Your task to perform on an android device: turn smart compose on in the gmail app Image 0: 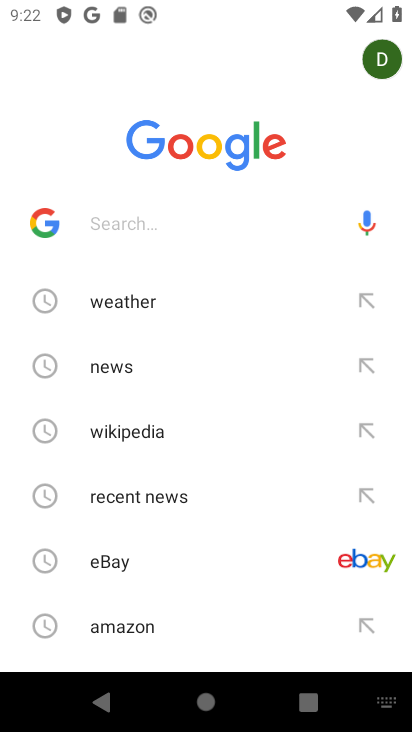
Step 0: press home button
Your task to perform on an android device: turn smart compose on in the gmail app Image 1: 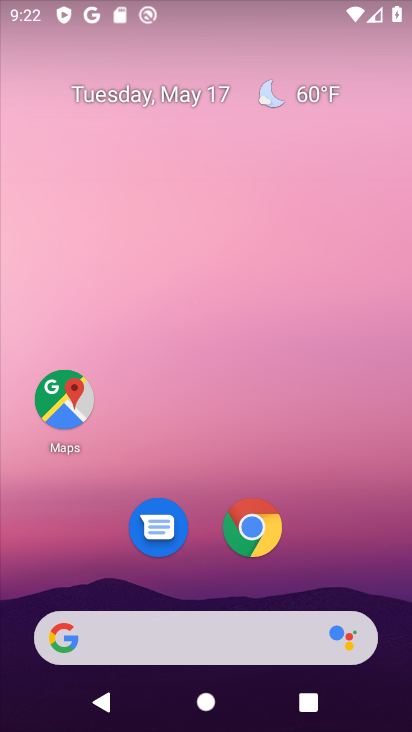
Step 1: drag from (204, 588) to (244, 33)
Your task to perform on an android device: turn smart compose on in the gmail app Image 2: 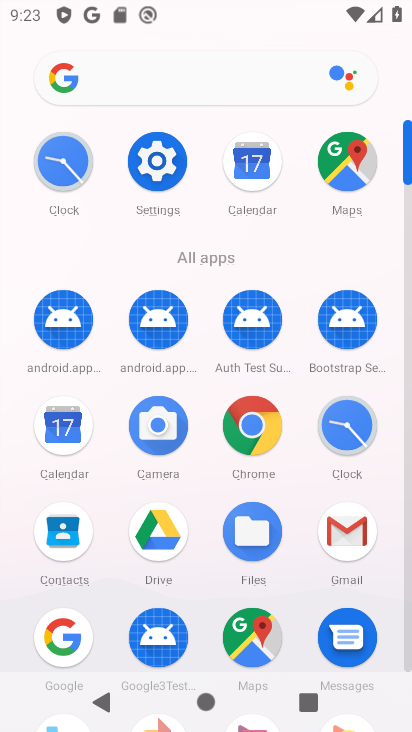
Step 2: click (331, 540)
Your task to perform on an android device: turn smart compose on in the gmail app Image 3: 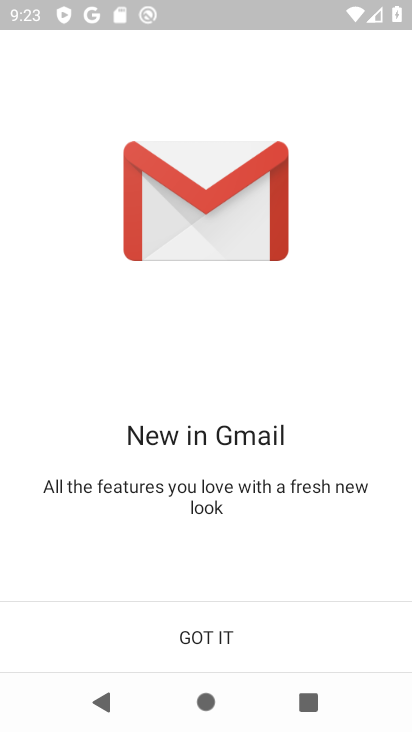
Step 3: click (220, 637)
Your task to perform on an android device: turn smart compose on in the gmail app Image 4: 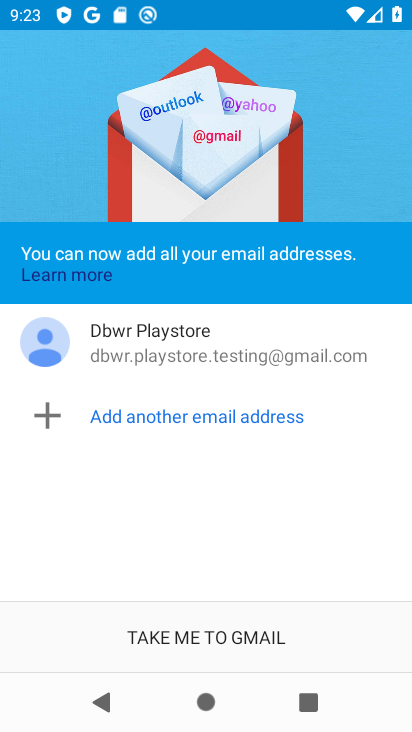
Step 4: click (220, 637)
Your task to perform on an android device: turn smart compose on in the gmail app Image 5: 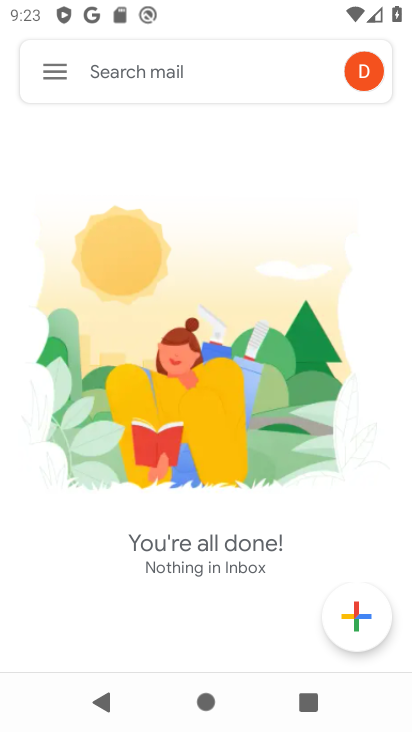
Step 5: click (46, 73)
Your task to perform on an android device: turn smart compose on in the gmail app Image 6: 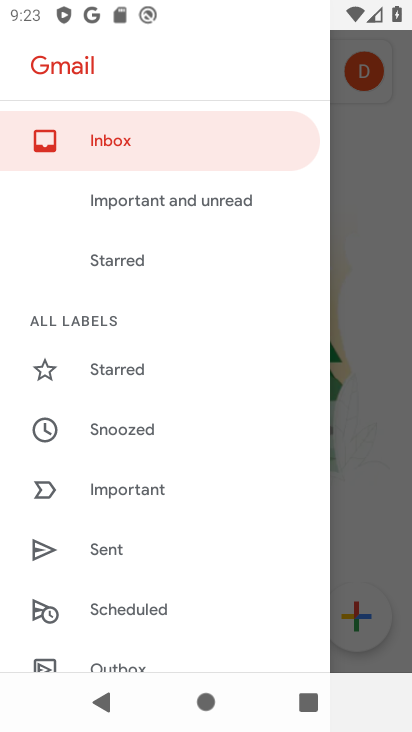
Step 6: drag from (152, 618) to (207, 89)
Your task to perform on an android device: turn smart compose on in the gmail app Image 7: 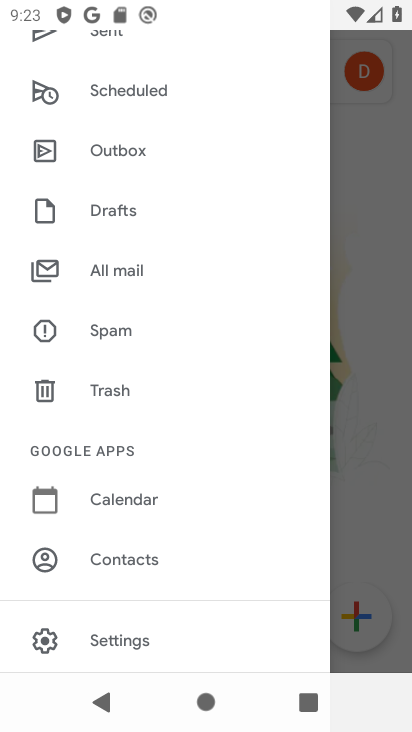
Step 7: click (126, 633)
Your task to perform on an android device: turn smart compose on in the gmail app Image 8: 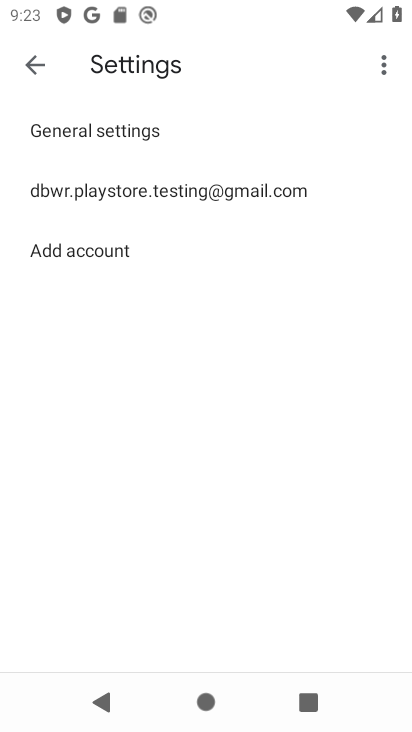
Step 8: click (129, 184)
Your task to perform on an android device: turn smart compose on in the gmail app Image 9: 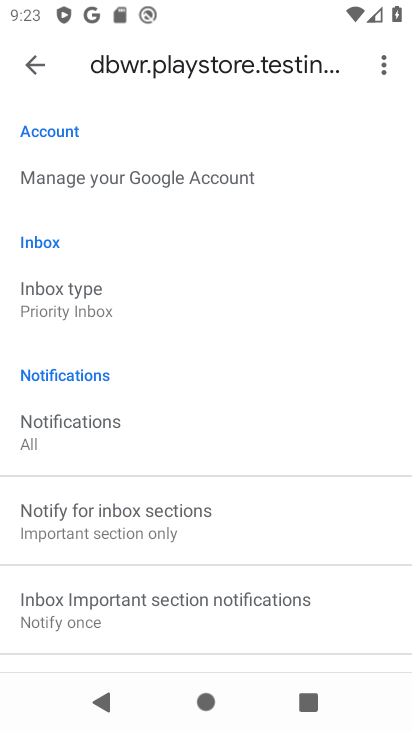
Step 9: task complete